Your task to perform on an android device: Search for seafood restaurants on Google Maps Image 0: 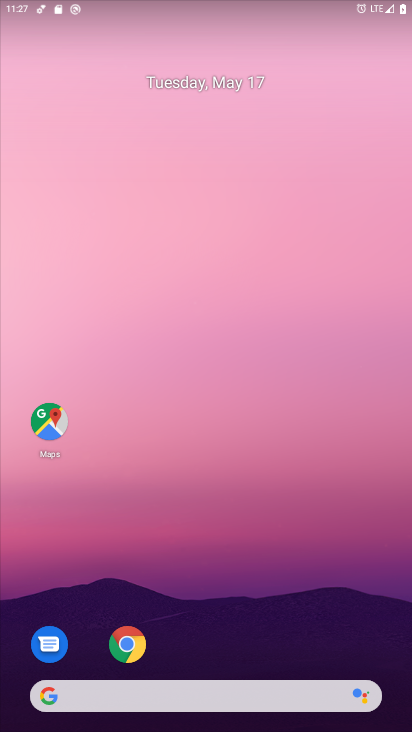
Step 0: drag from (218, 650) to (253, 249)
Your task to perform on an android device: Search for seafood restaurants on Google Maps Image 1: 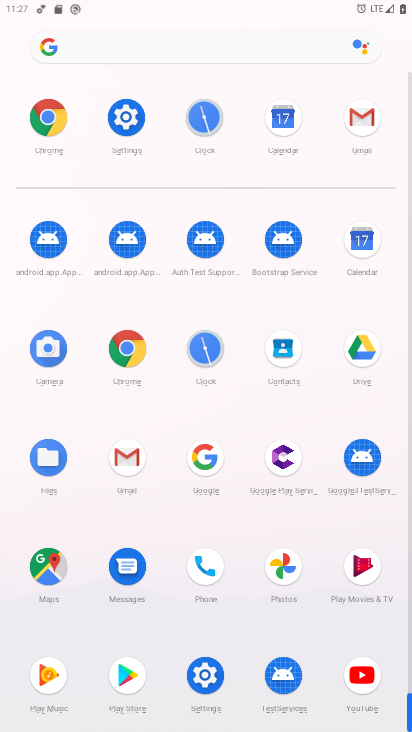
Step 1: click (53, 563)
Your task to perform on an android device: Search for seafood restaurants on Google Maps Image 2: 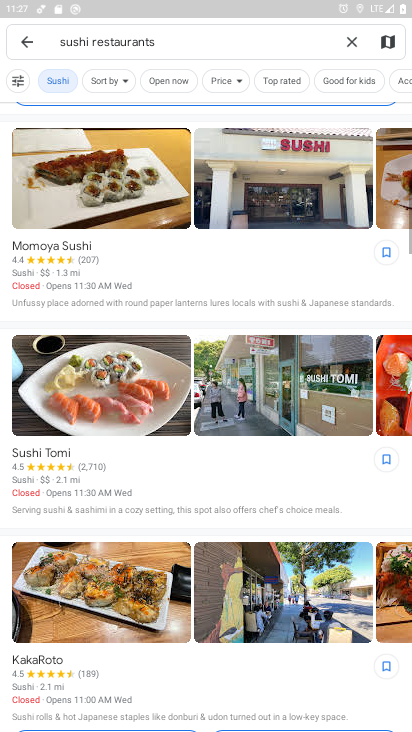
Step 2: click (349, 41)
Your task to perform on an android device: Search for seafood restaurants on Google Maps Image 3: 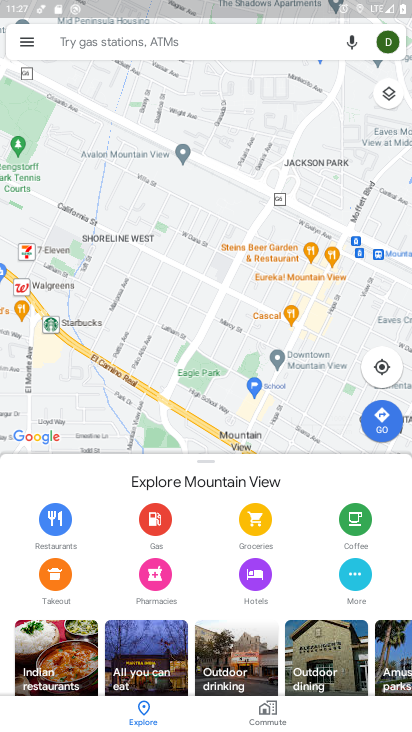
Step 3: click (111, 37)
Your task to perform on an android device: Search for seafood restaurants on Google Maps Image 4: 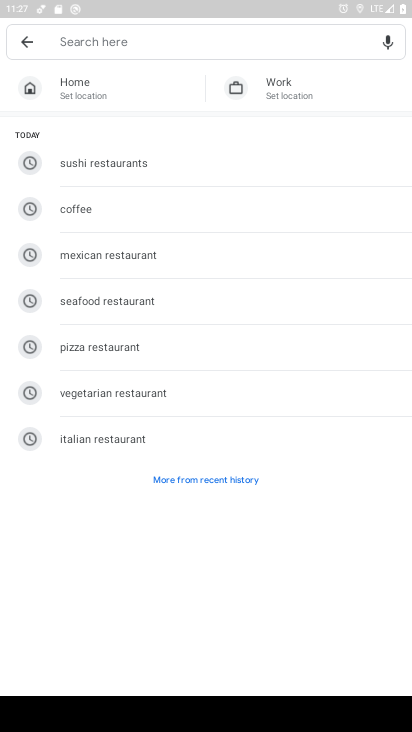
Step 4: click (159, 293)
Your task to perform on an android device: Search for seafood restaurants on Google Maps Image 5: 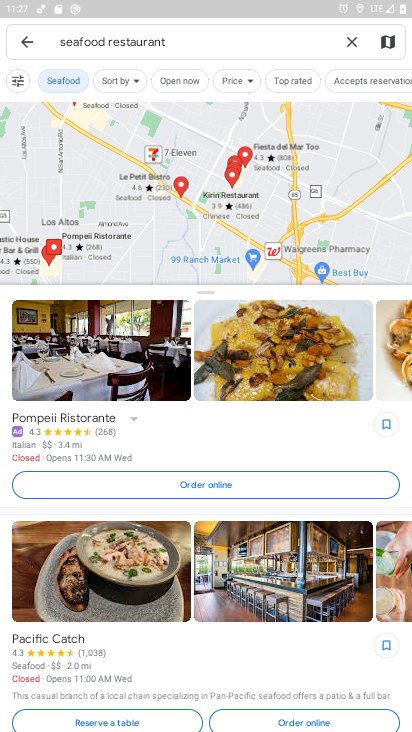
Step 5: task complete